Your task to perform on an android device: change notifications settings Image 0: 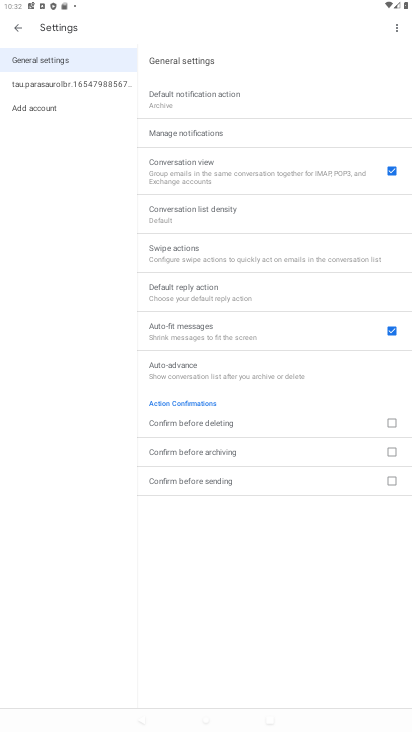
Step 0: press home button
Your task to perform on an android device: change notifications settings Image 1: 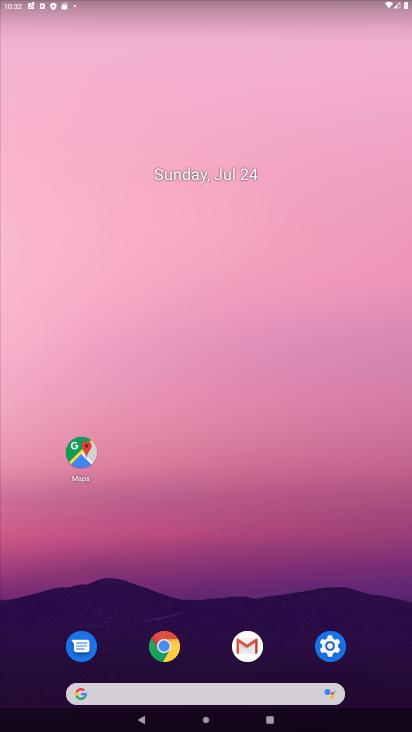
Step 1: click (178, 655)
Your task to perform on an android device: change notifications settings Image 2: 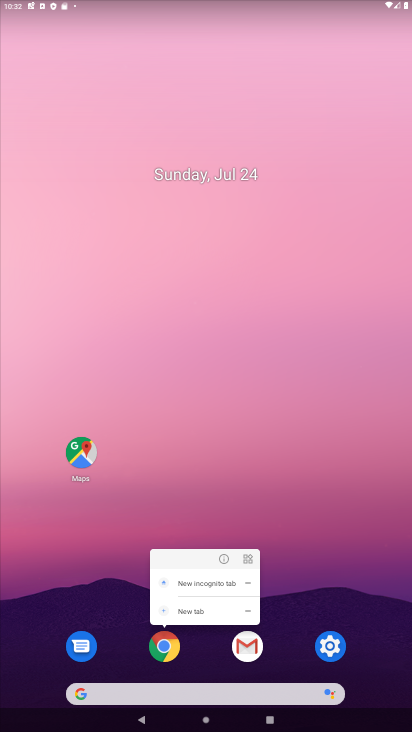
Step 2: click (168, 656)
Your task to perform on an android device: change notifications settings Image 3: 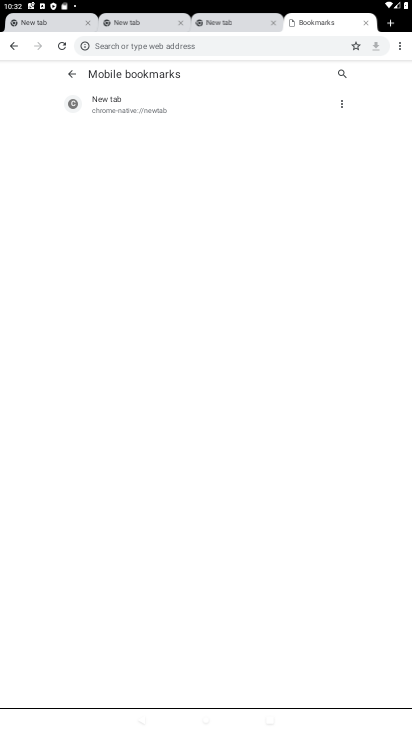
Step 3: click (399, 53)
Your task to perform on an android device: change notifications settings Image 4: 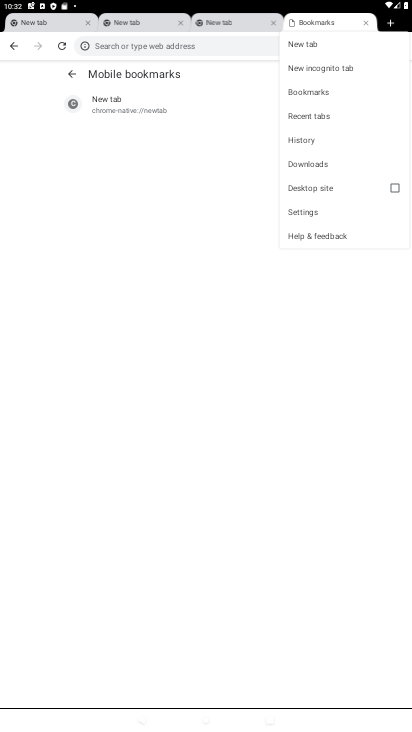
Step 4: click (307, 214)
Your task to perform on an android device: change notifications settings Image 5: 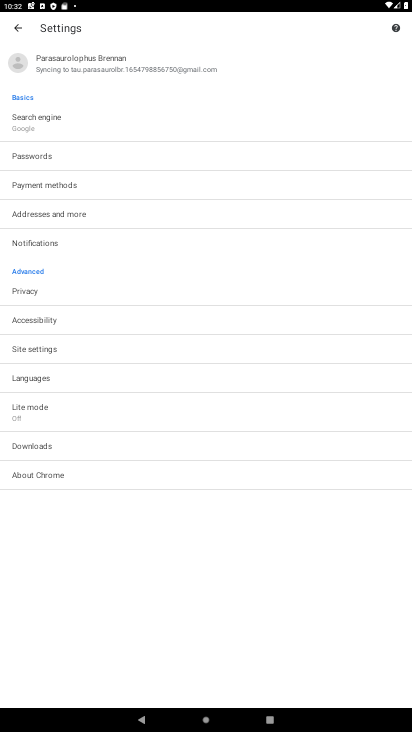
Step 5: click (49, 350)
Your task to perform on an android device: change notifications settings Image 6: 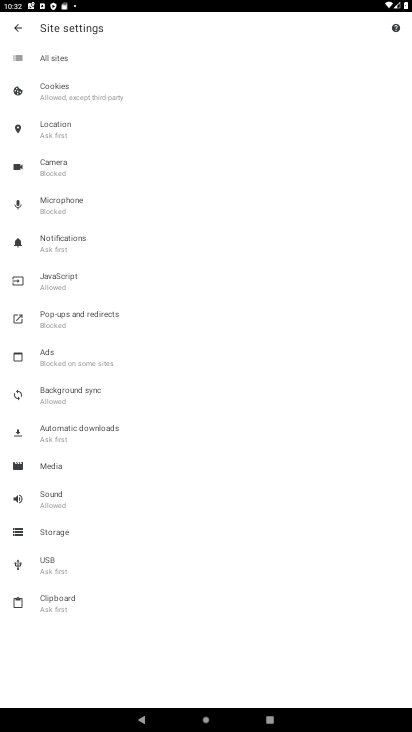
Step 6: click (67, 252)
Your task to perform on an android device: change notifications settings Image 7: 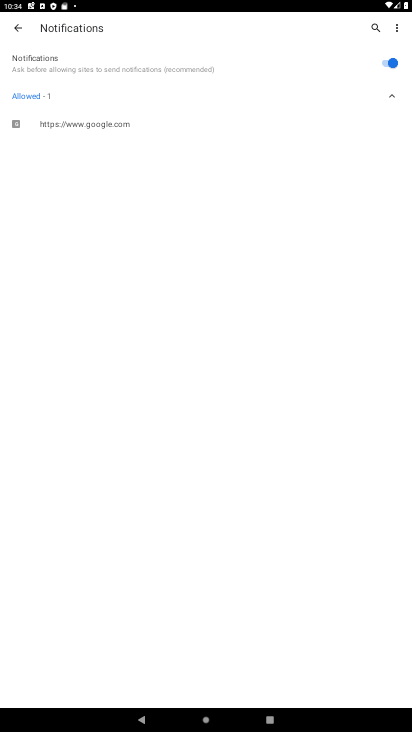
Step 7: task complete